Your task to perform on an android device: delete the emails in spam in the gmail app Image 0: 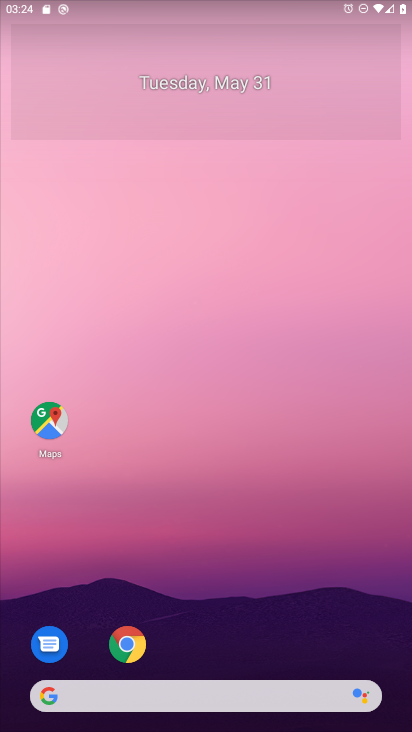
Step 0: drag from (295, 561) to (217, 56)
Your task to perform on an android device: delete the emails in spam in the gmail app Image 1: 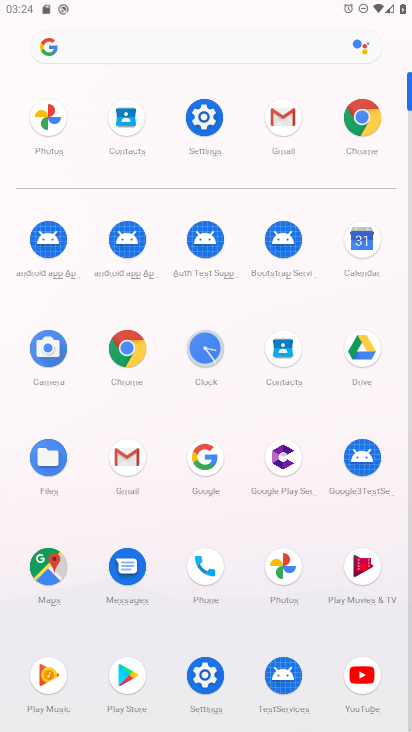
Step 1: click (122, 460)
Your task to perform on an android device: delete the emails in spam in the gmail app Image 2: 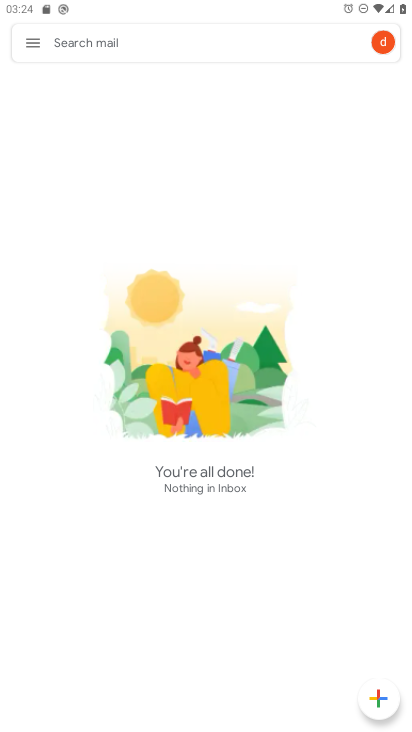
Step 2: click (30, 37)
Your task to perform on an android device: delete the emails in spam in the gmail app Image 3: 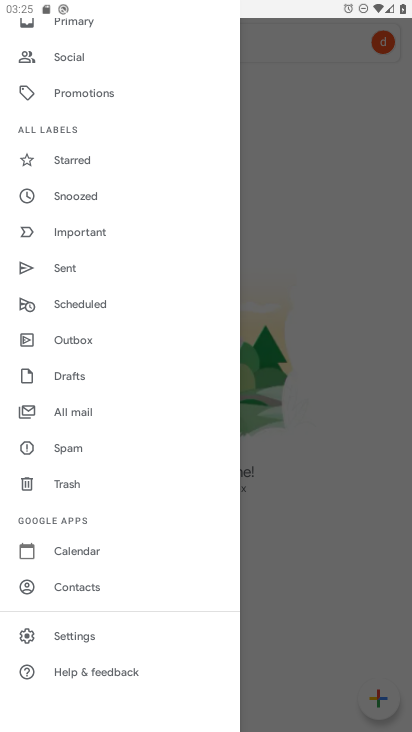
Step 3: click (63, 450)
Your task to perform on an android device: delete the emails in spam in the gmail app Image 4: 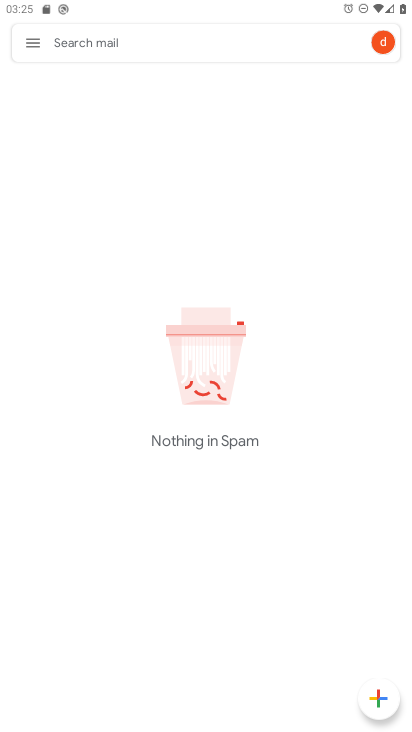
Step 4: task complete